Your task to perform on an android device: Do I have any events this weekend? Image 0: 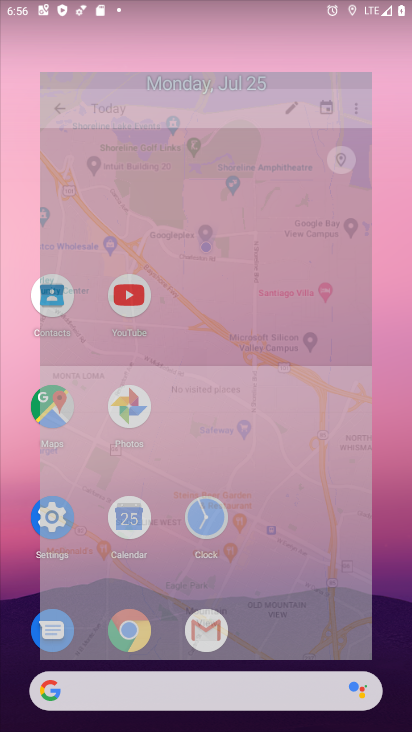
Step 0: click (216, 691)
Your task to perform on an android device: Do I have any events this weekend? Image 1: 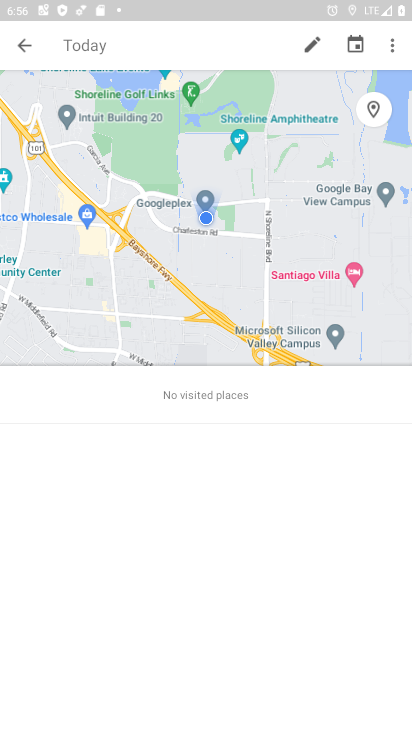
Step 1: press home button
Your task to perform on an android device: Do I have any events this weekend? Image 2: 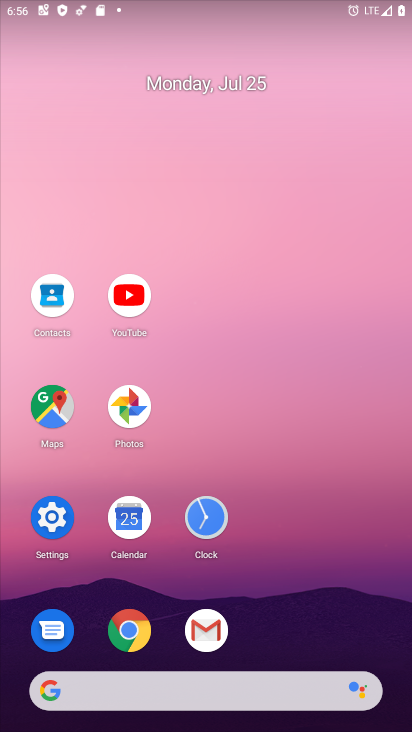
Step 2: click (135, 517)
Your task to perform on an android device: Do I have any events this weekend? Image 3: 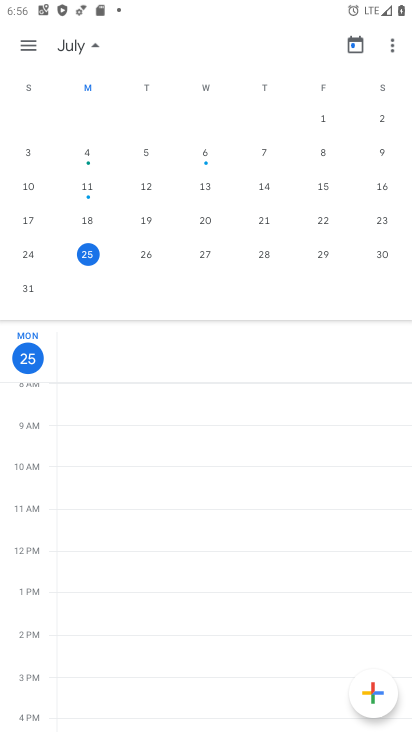
Step 3: click (27, 37)
Your task to perform on an android device: Do I have any events this weekend? Image 4: 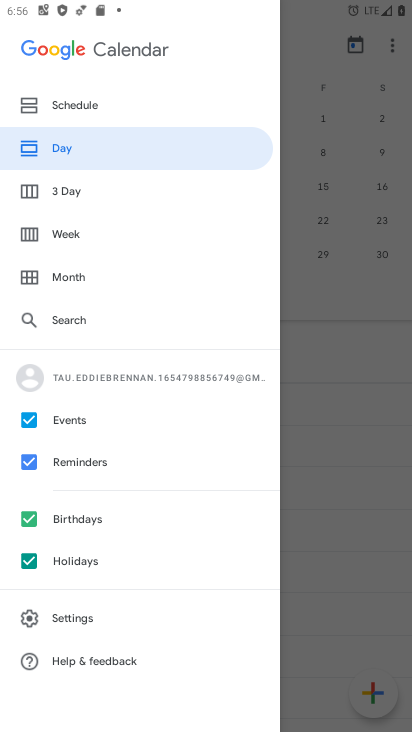
Step 4: click (57, 232)
Your task to perform on an android device: Do I have any events this weekend? Image 5: 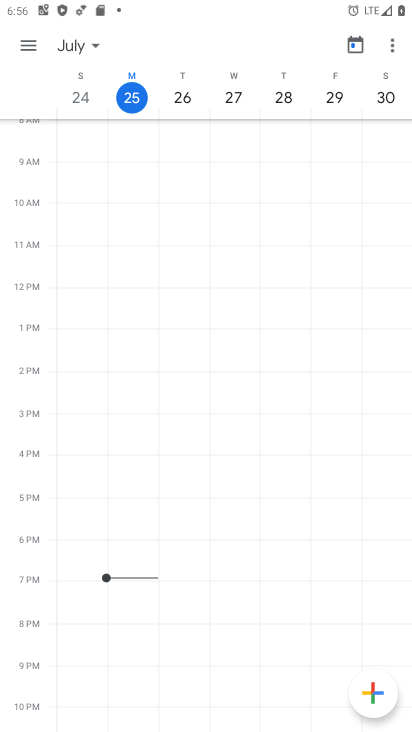
Step 5: click (382, 92)
Your task to perform on an android device: Do I have any events this weekend? Image 6: 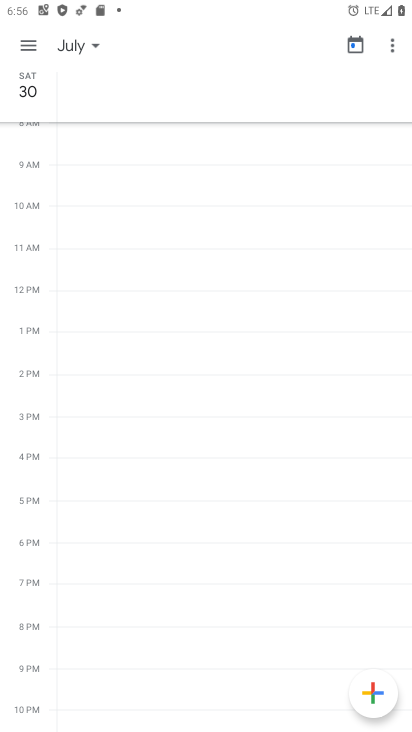
Step 6: task complete